Your task to perform on an android device: Go to eBay Image 0: 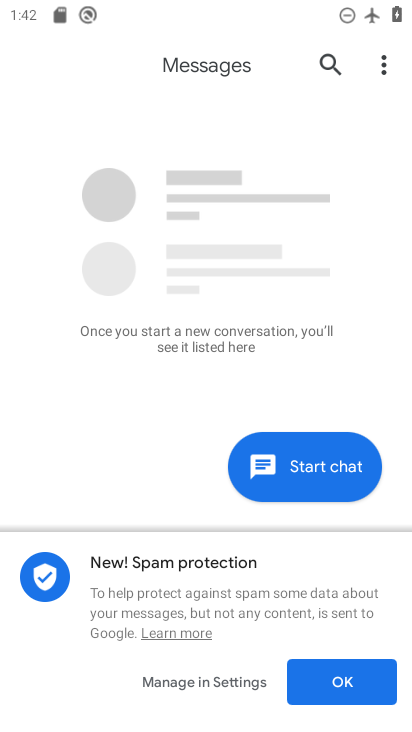
Step 0: press home button
Your task to perform on an android device: Go to eBay Image 1: 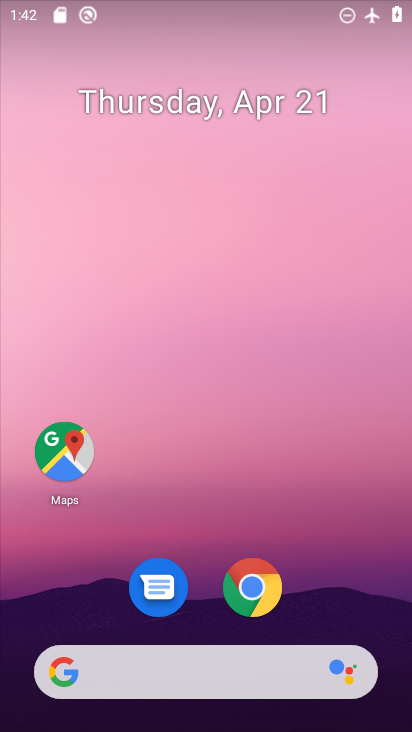
Step 1: click (257, 577)
Your task to perform on an android device: Go to eBay Image 2: 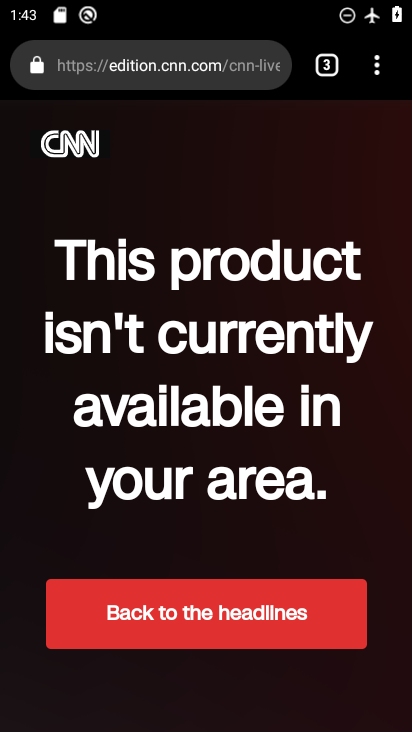
Step 2: click (373, 69)
Your task to perform on an android device: Go to eBay Image 3: 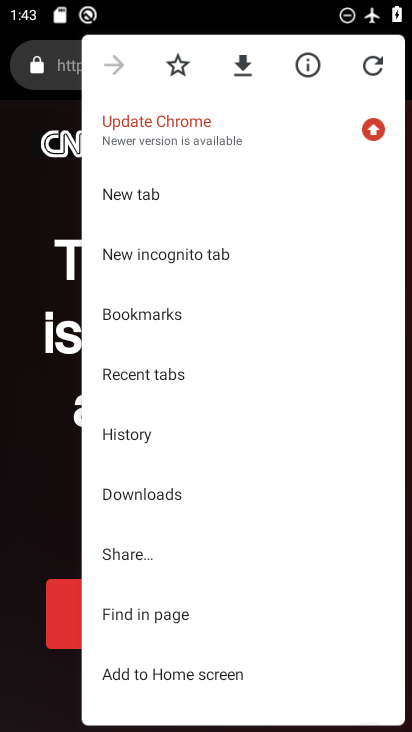
Step 3: click (135, 199)
Your task to perform on an android device: Go to eBay Image 4: 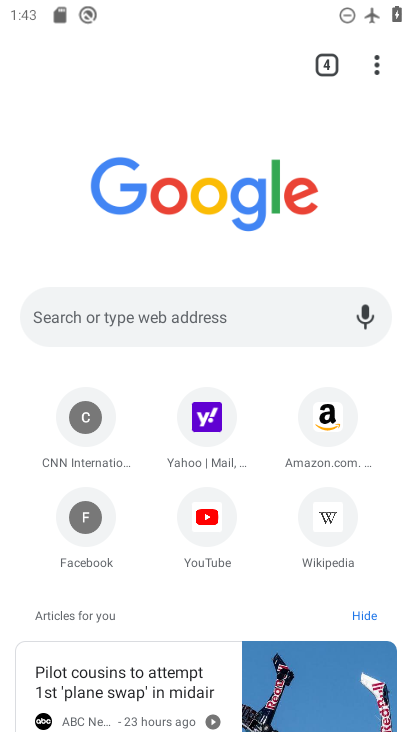
Step 4: click (146, 311)
Your task to perform on an android device: Go to eBay Image 5: 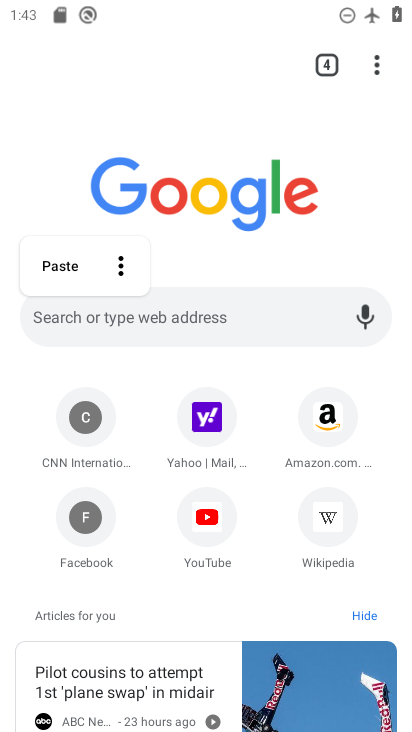
Step 5: type " eBay"
Your task to perform on an android device: Go to eBay Image 6: 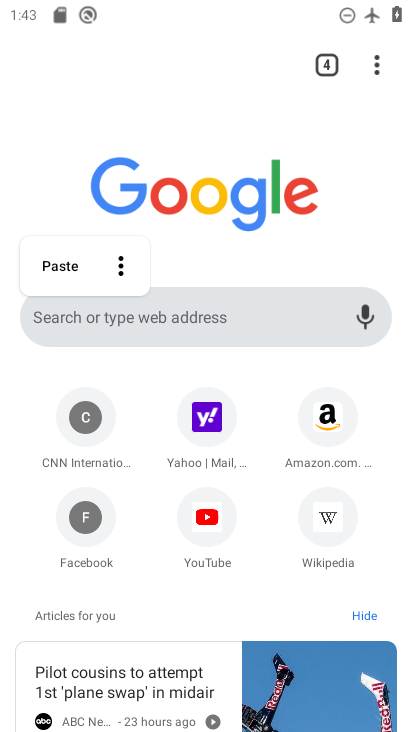
Step 6: type ""
Your task to perform on an android device: Go to eBay Image 7: 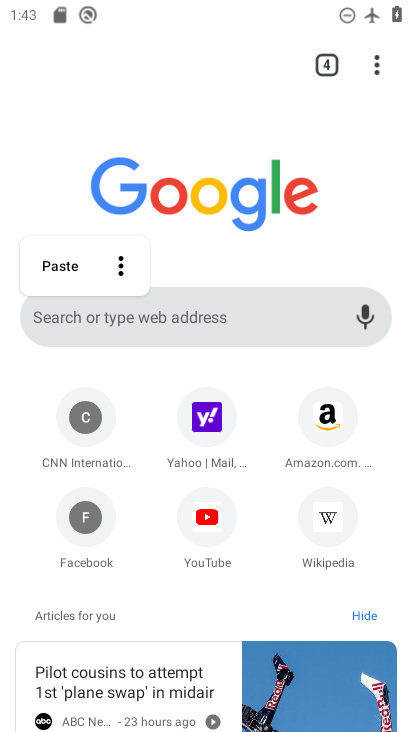
Step 7: click (195, 315)
Your task to perform on an android device: Go to eBay Image 8: 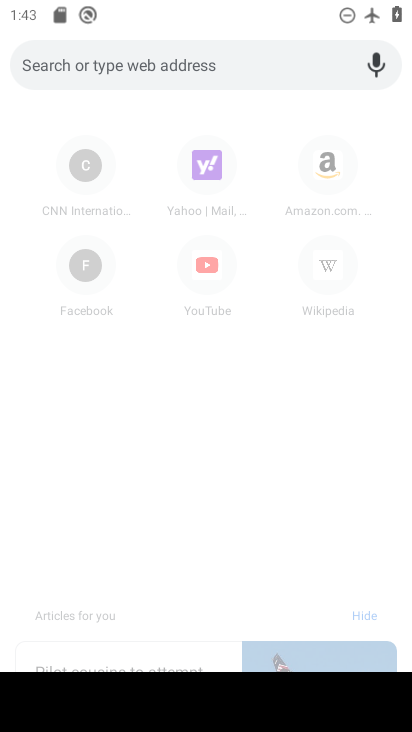
Step 8: type " eBay"
Your task to perform on an android device: Go to eBay Image 9: 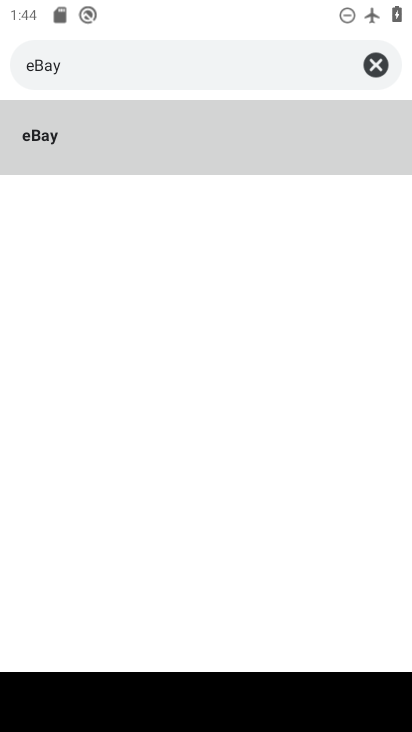
Step 9: click (38, 138)
Your task to perform on an android device: Go to eBay Image 10: 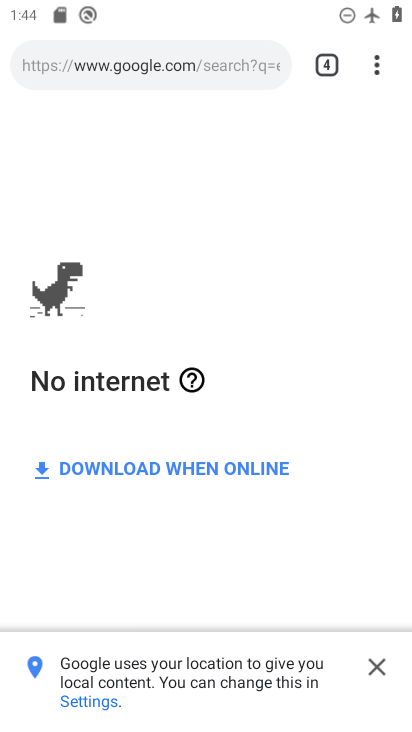
Step 10: task complete